Your task to perform on an android device: Do I have any events this weekend? Image 0: 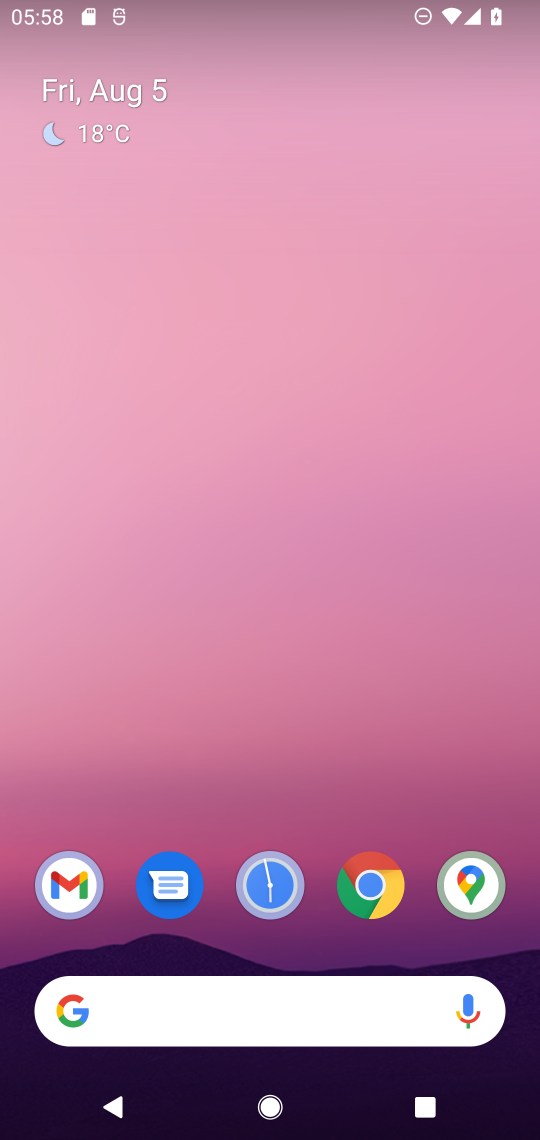
Step 0: drag from (323, 827) to (325, 143)
Your task to perform on an android device: Do I have any events this weekend? Image 1: 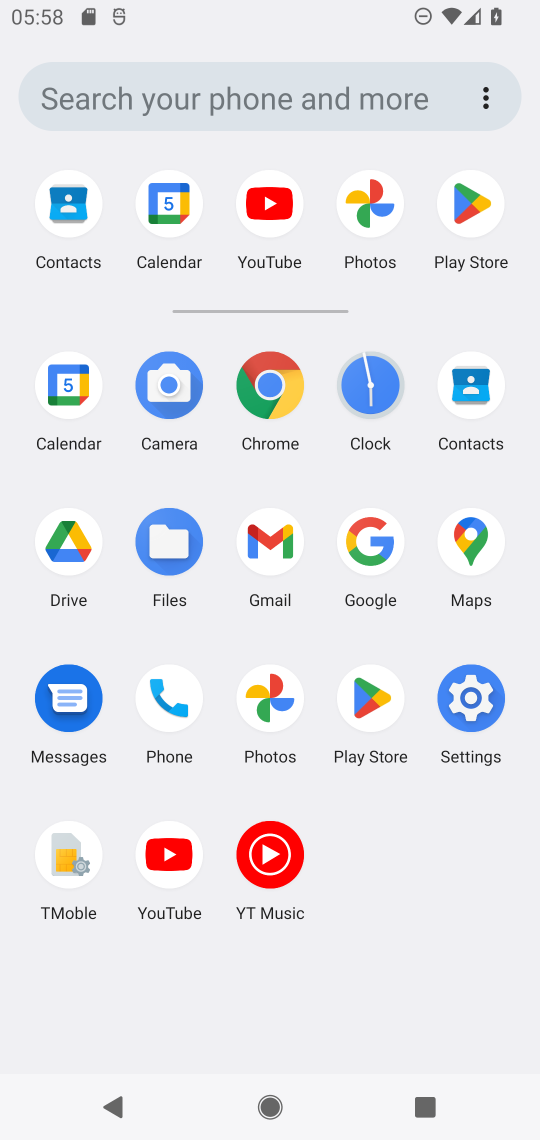
Step 1: click (67, 397)
Your task to perform on an android device: Do I have any events this weekend? Image 2: 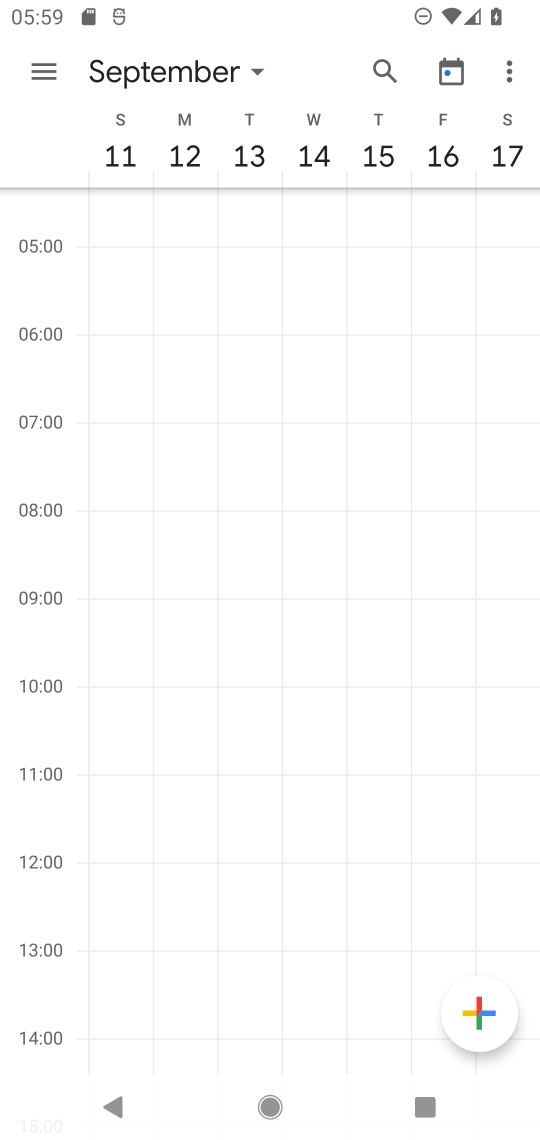
Step 2: click (252, 67)
Your task to perform on an android device: Do I have any events this weekend? Image 3: 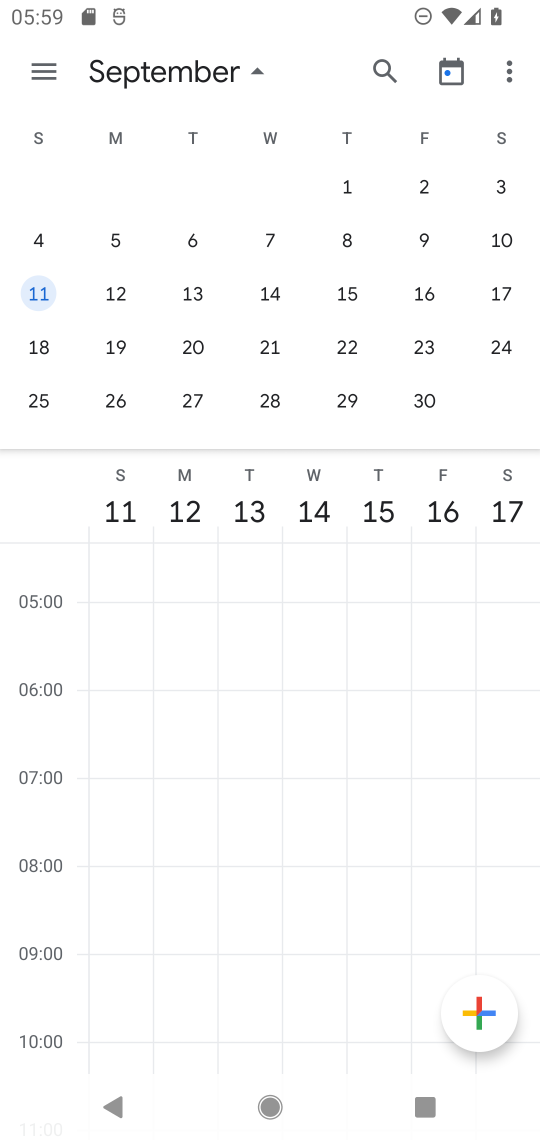
Step 3: drag from (91, 273) to (535, 326)
Your task to perform on an android device: Do I have any events this weekend? Image 4: 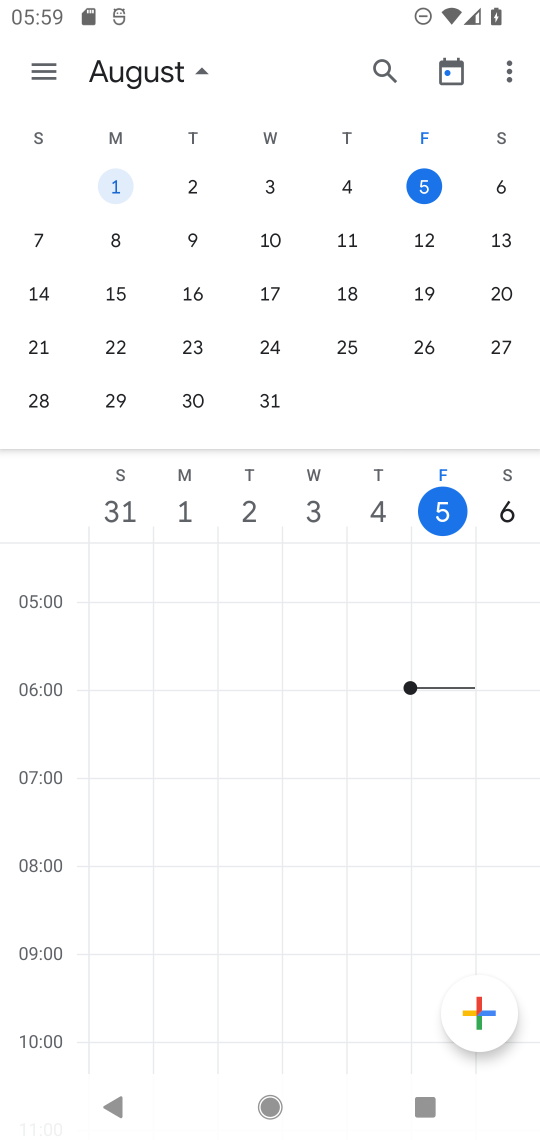
Step 4: drag from (101, 237) to (273, 220)
Your task to perform on an android device: Do I have any events this weekend? Image 5: 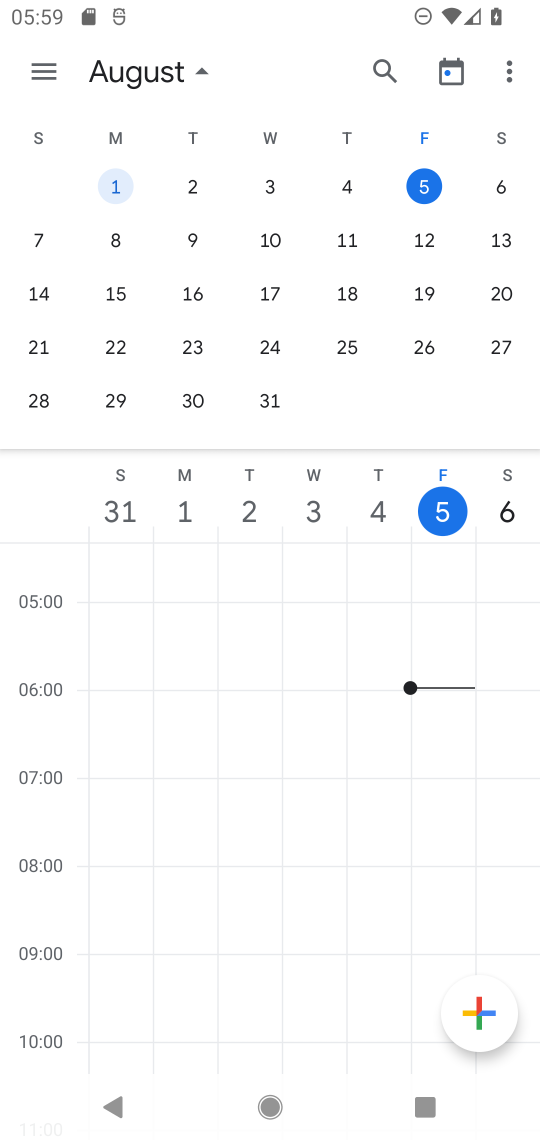
Step 5: click (503, 178)
Your task to perform on an android device: Do I have any events this weekend? Image 6: 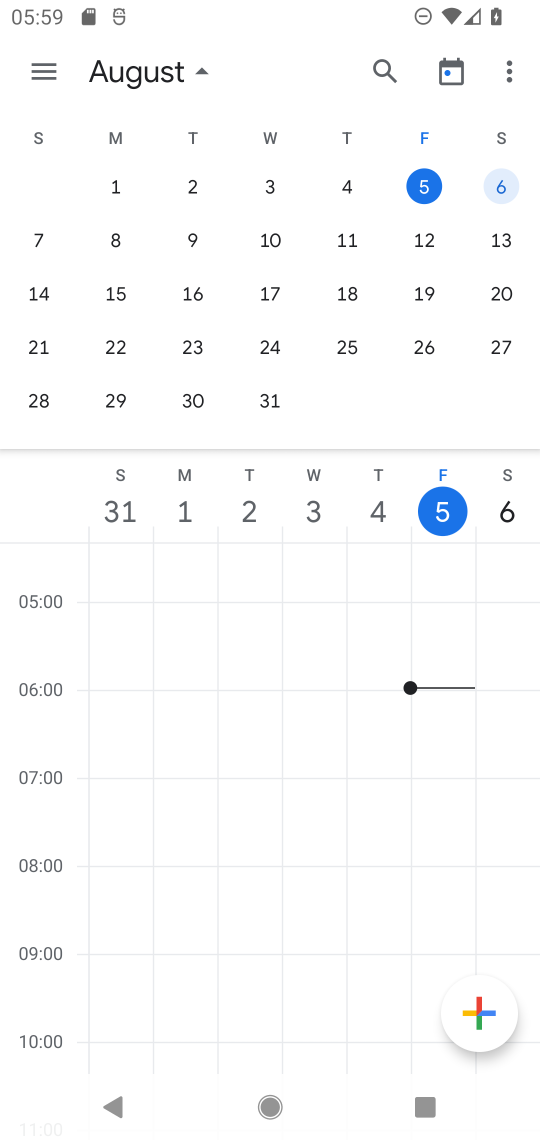
Step 6: click (503, 178)
Your task to perform on an android device: Do I have any events this weekend? Image 7: 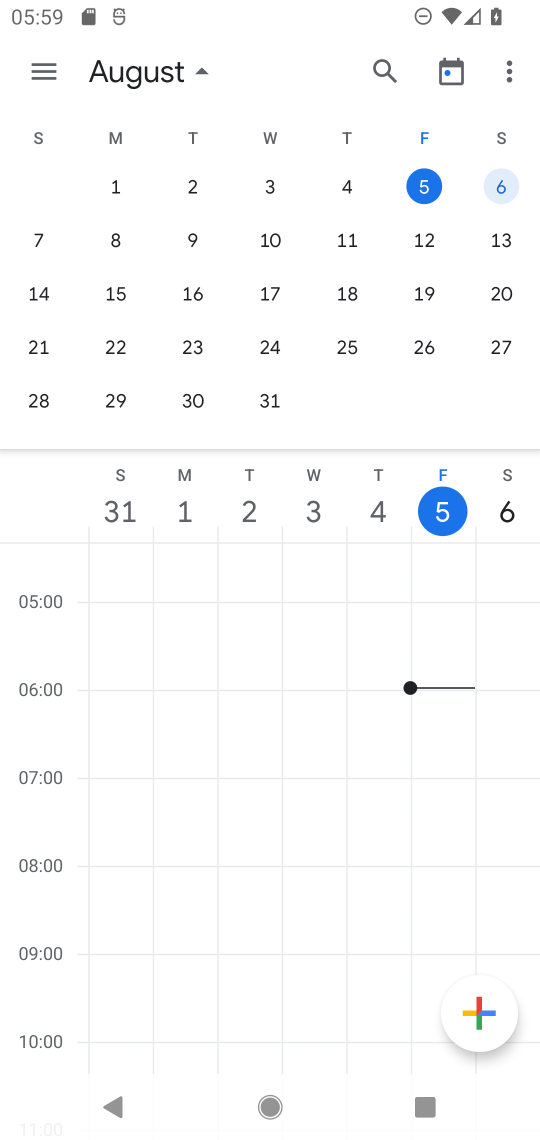
Step 7: click (503, 178)
Your task to perform on an android device: Do I have any events this weekend? Image 8: 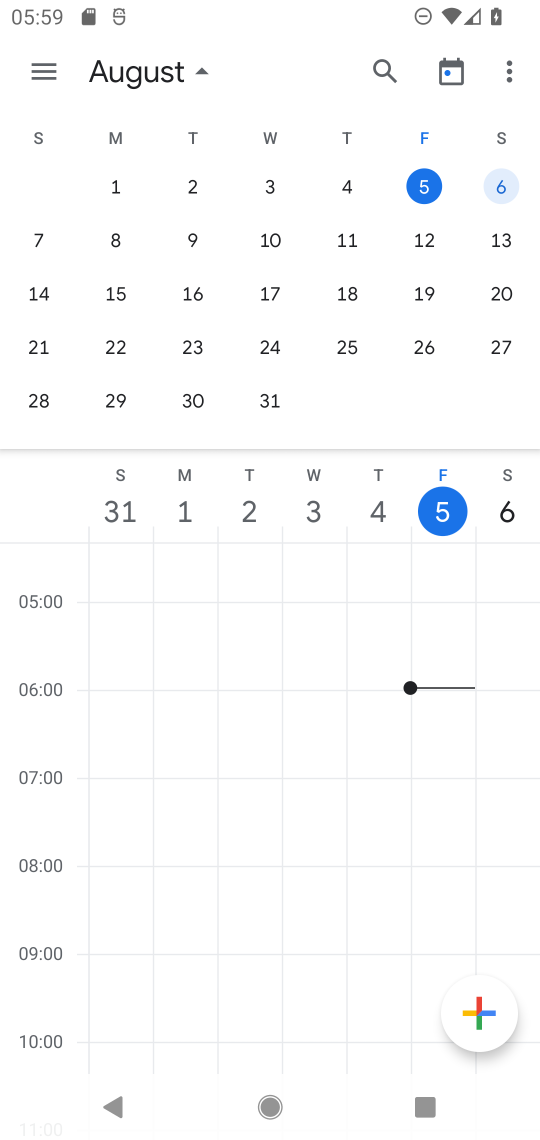
Step 8: click (503, 178)
Your task to perform on an android device: Do I have any events this weekend? Image 9: 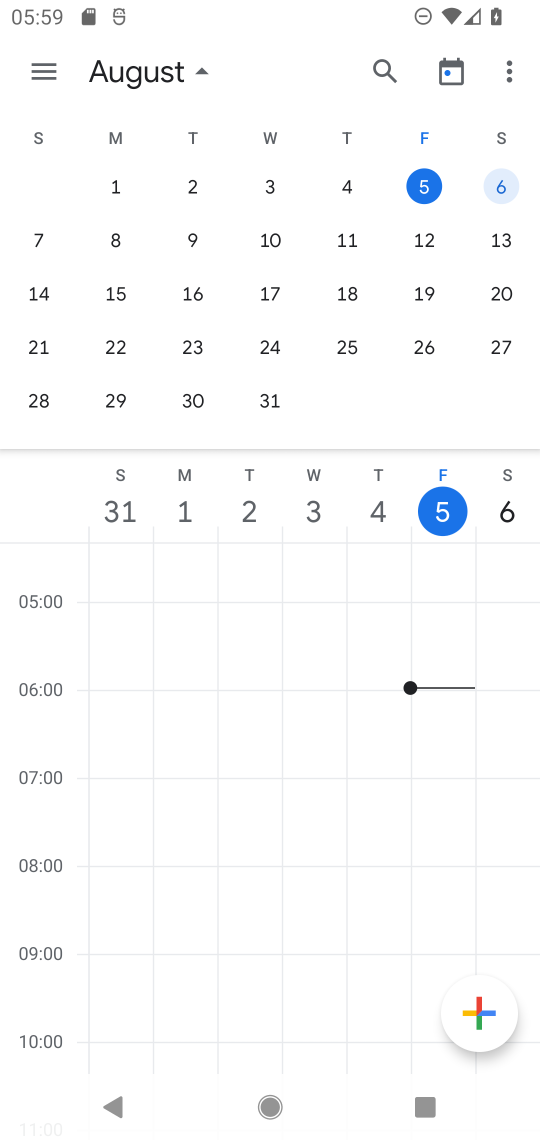
Step 9: click (37, 76)
Your task to perform on an android device: Do I have any events this weekend? Image 10: 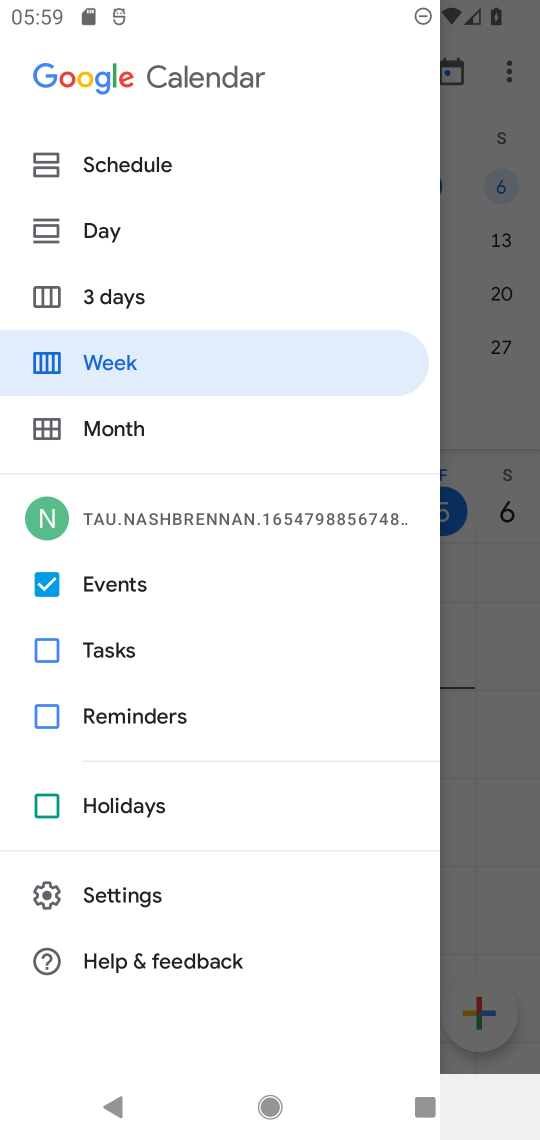
Step 10: click (123, 347)
Your task to perform on an android device: Do I have any events this weekend? Image 11: 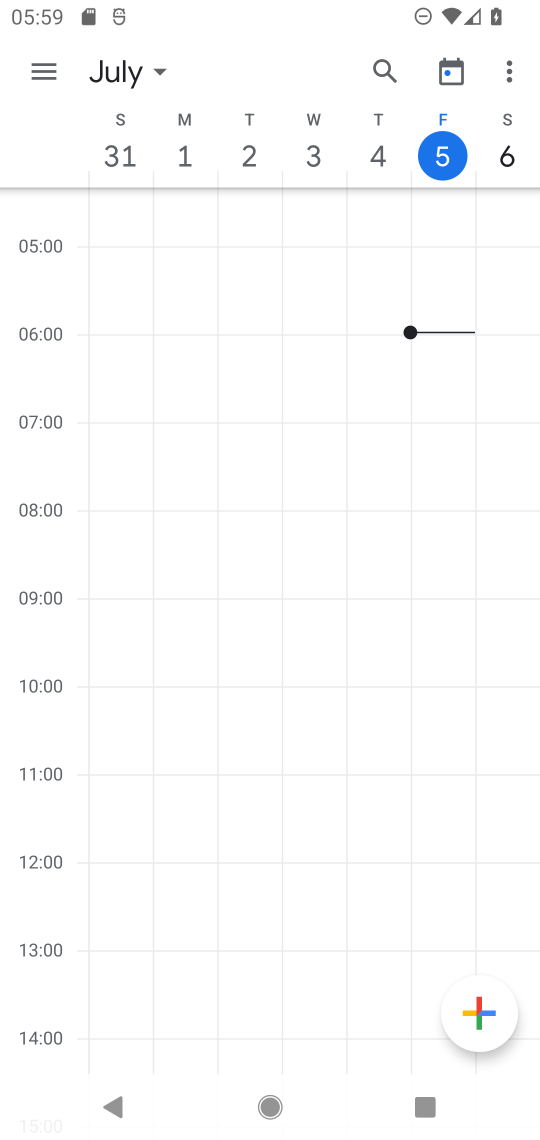
Step 11: task complete